Your task to perform on an android device: Search for seafood restaurants on Google Maps Image 0: 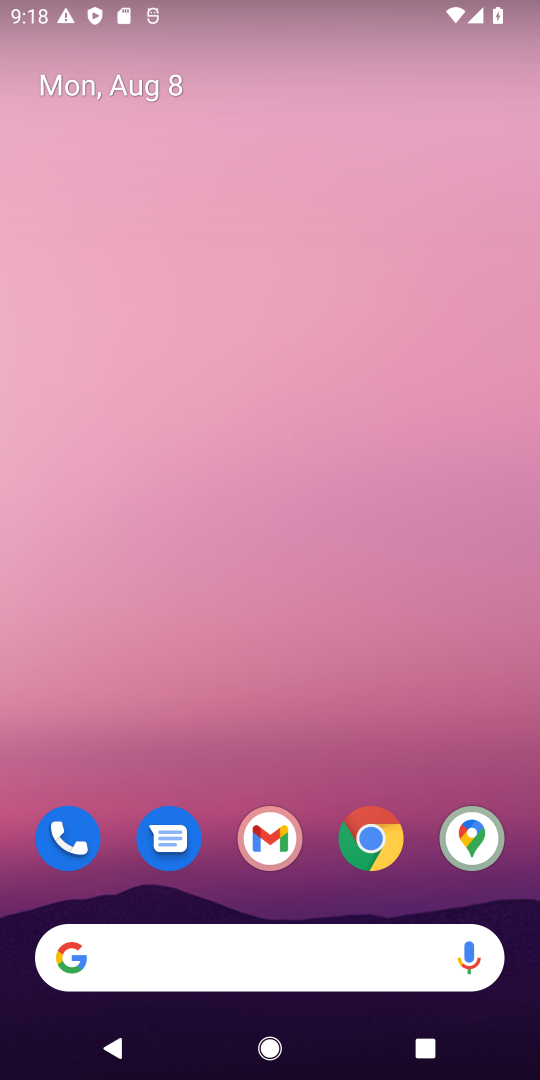
Step 0: press home button
Your task to perform on an android device: Search for seafood restaurants on Google Maps Image 1: 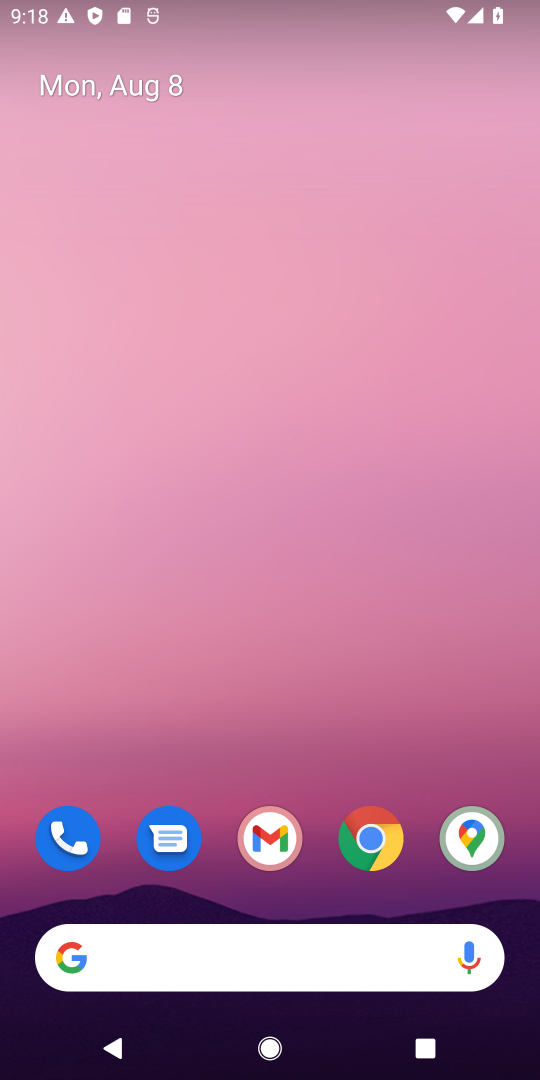
Step 1: drag from (338, 829) to (395, 212)
Your task to perform on an android device: Search for seafood restaurants on Google Maps Image 2: 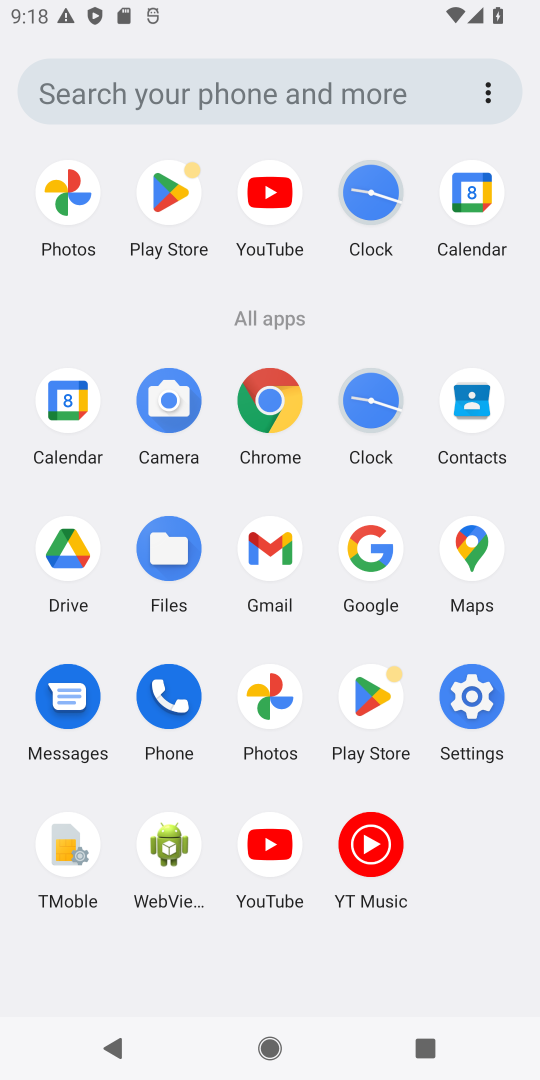
Step 2: click (471, 567)
Your task to perform on an android device: Search for seafood restaurants on Google Maps Image 3: 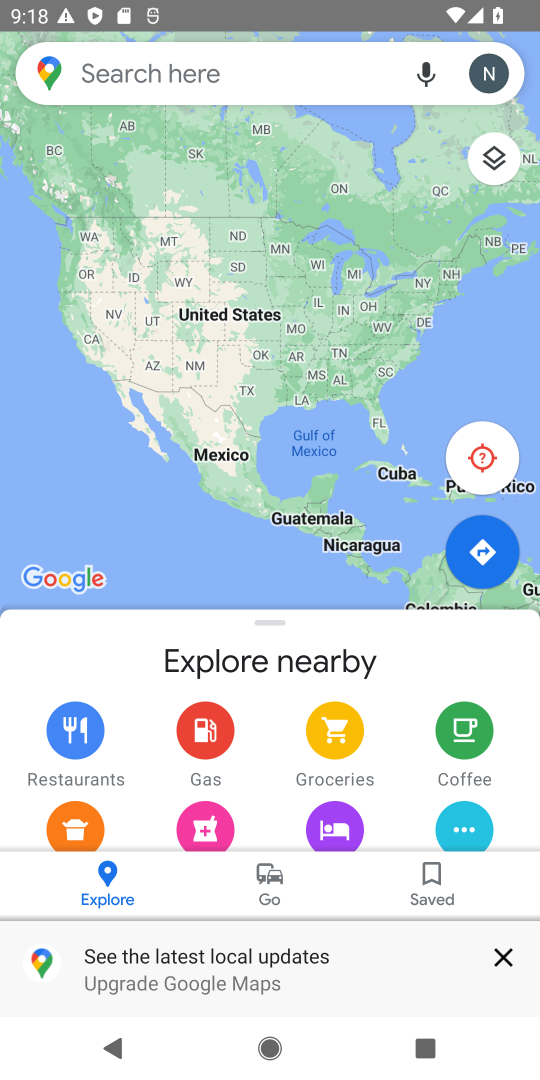
Step 3: click (175, 68)
Your task to perform on an android device: Search for seafood restaurants on Google Maps Image 4: 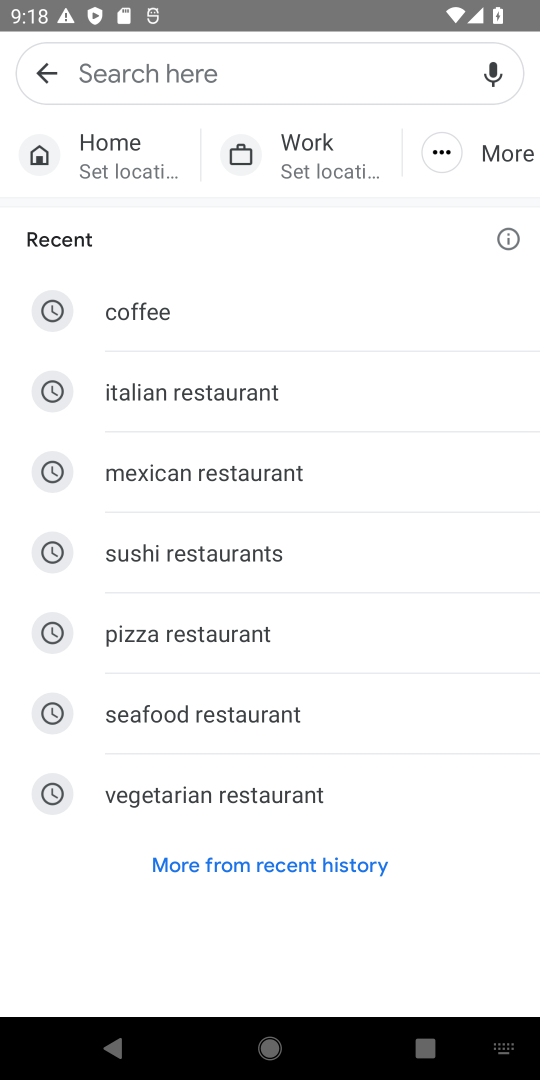
Step 4: click (192, 720)
Your task to perform on an android device: Search for seafood restaurants on Google Maps Image 5: 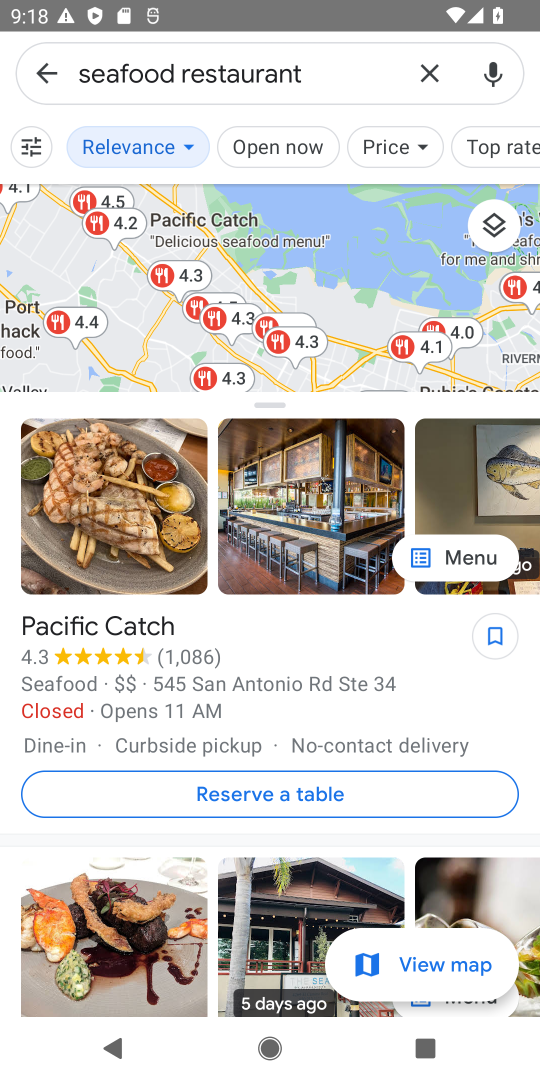
Step 5: task complete